Your task to perform on an android device: Go to Wikipedia Image 0: 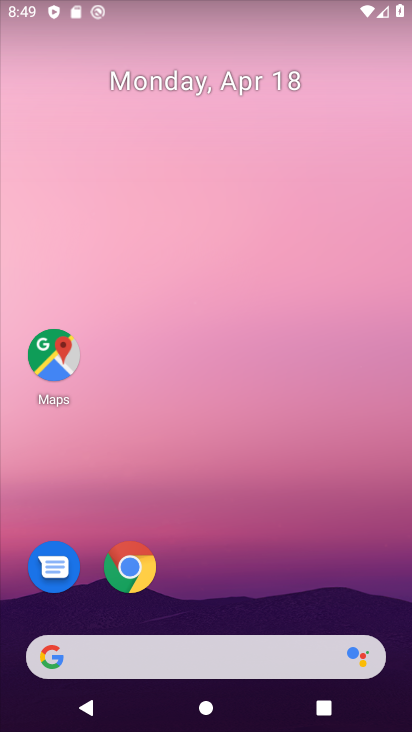
Step 0: click (127, 558)
Your task to perform on an android device: Go to Wikipedia Image 1: 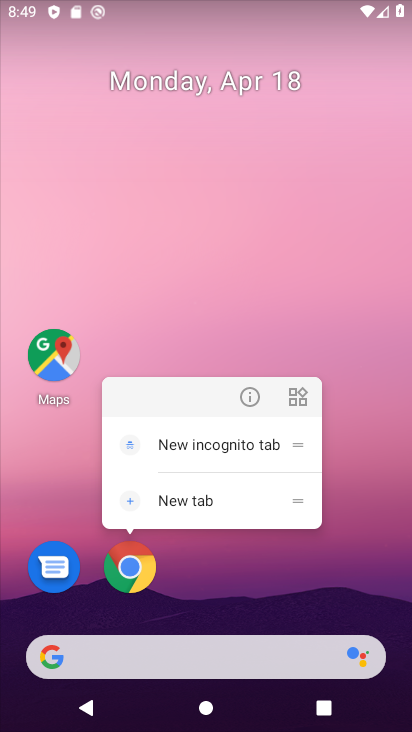
Step 1: click (127, 558)
Your task to perform on an android device: Go to Wikipedia Image 2: 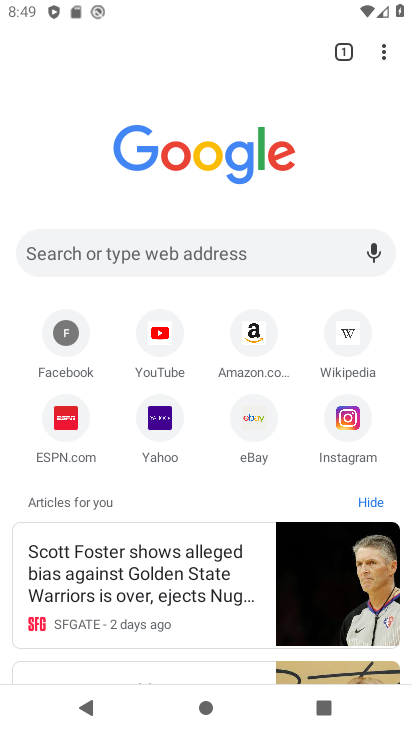
Step 2: click (346, 349)
Your task to perform on an android device: Go to Wikipedia Image 3: 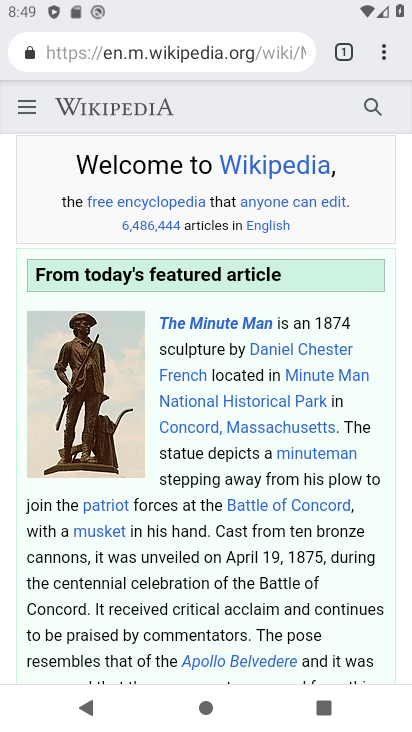
Step 3: task complete